Your task to perform on an android device: change text size in settings app Image 0: 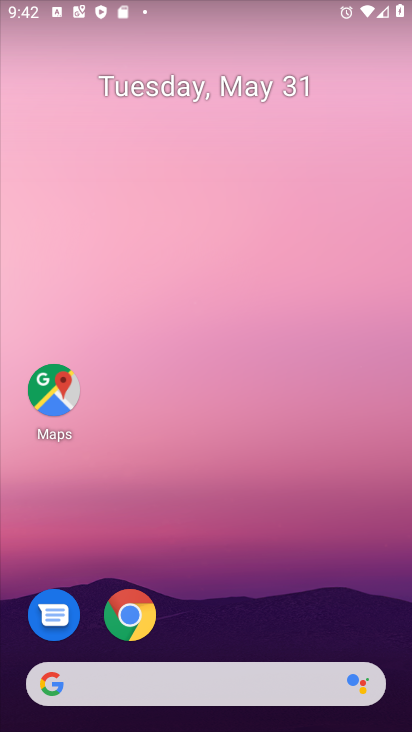
Step 0: drag from (360, 616) to (320, 60)
Your task to perform on an android device: change text size in settings app Image 1: 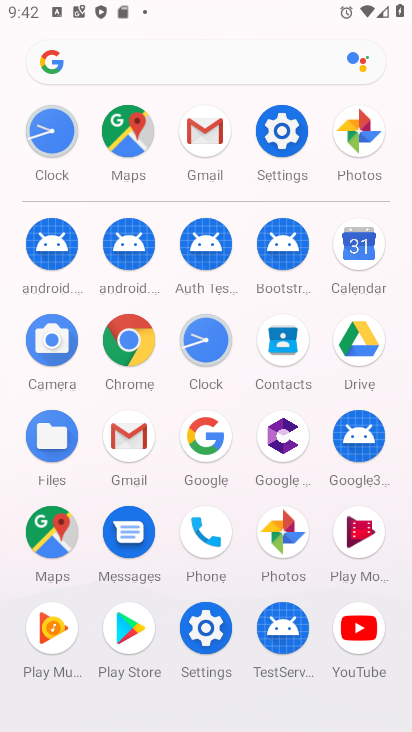
Step 1: click (203, 627)
Your task to perform on an android device: change text size in settings app Image 2: 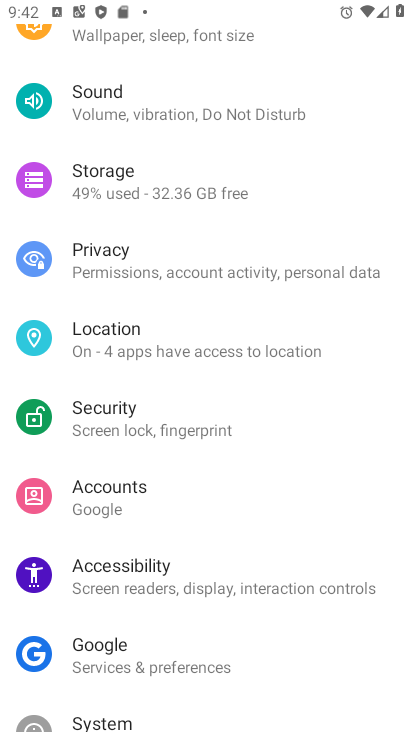
Step 2: drag from (299, 128) to (324, 430)
Your task to perform on an android device: change text size in settings app Image 3: 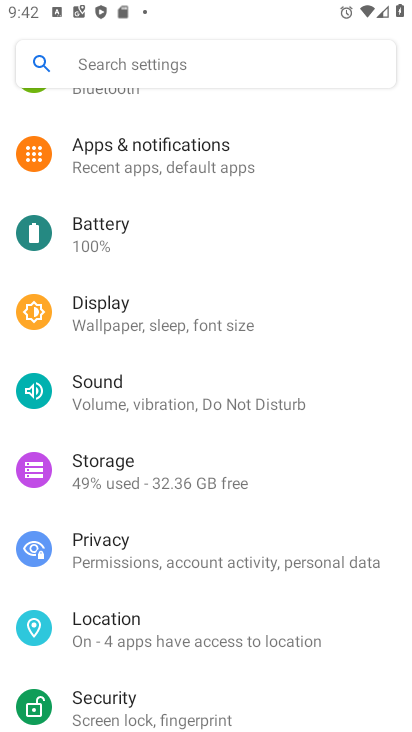
Step 3: click (107, 315)
Your task to perform on an android device: change text size in settings app Image 4: 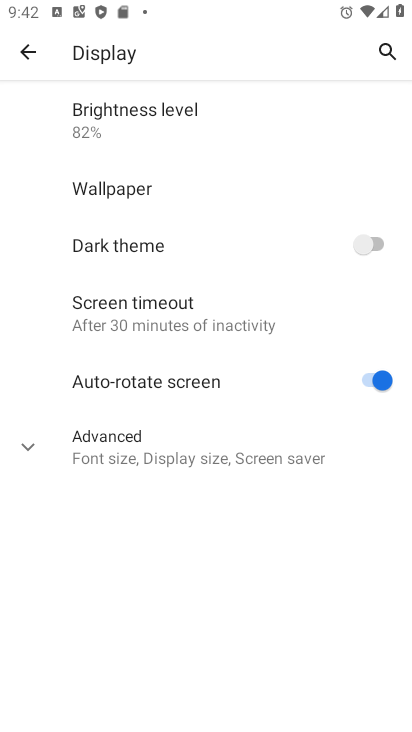
Step 4: click (34, 450)
Your task to perform on an android device: change text size in settings app Image 5: 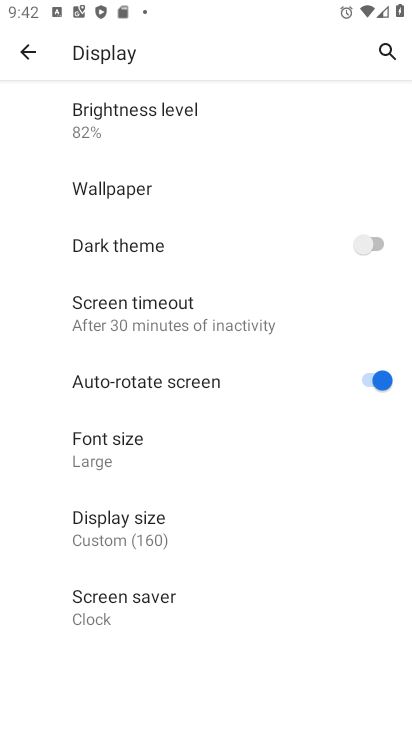
Step 5: click (103, 450)
Your task to perform on an android device: change text size in settings app Image 6: 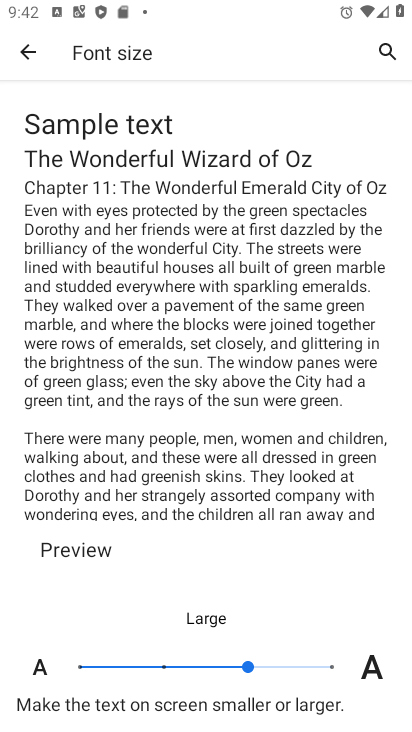
Step 6: click (169, 667)
Your task to perform on an android device: change text size in settings app Image 7: 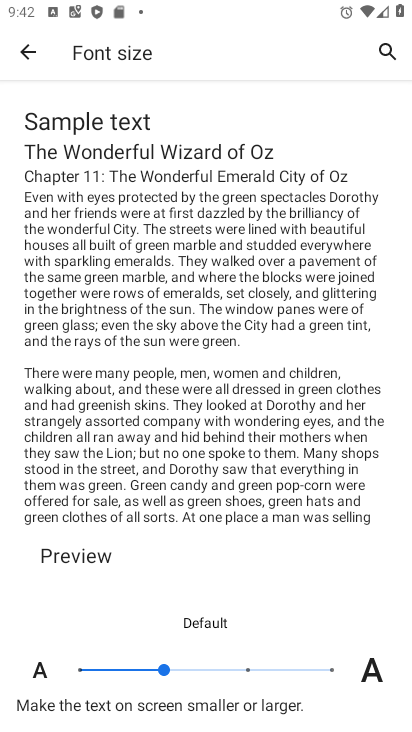
Step 7: task complete